Your task to perform on an android device: Check the news Image 0: 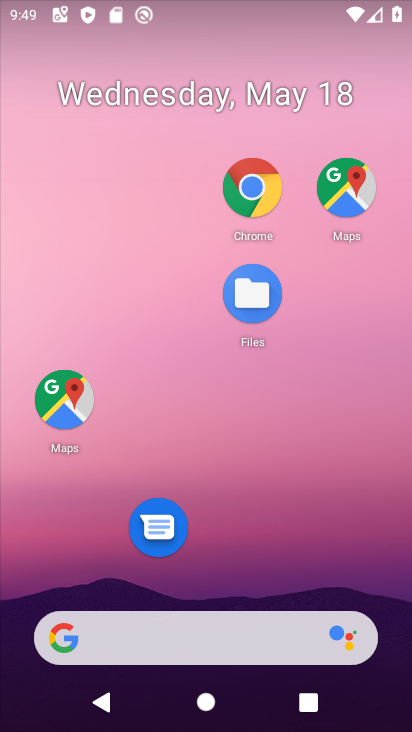
Step 0: click (191, 622)
Your task to perform on an android device: Check the news Image 1: 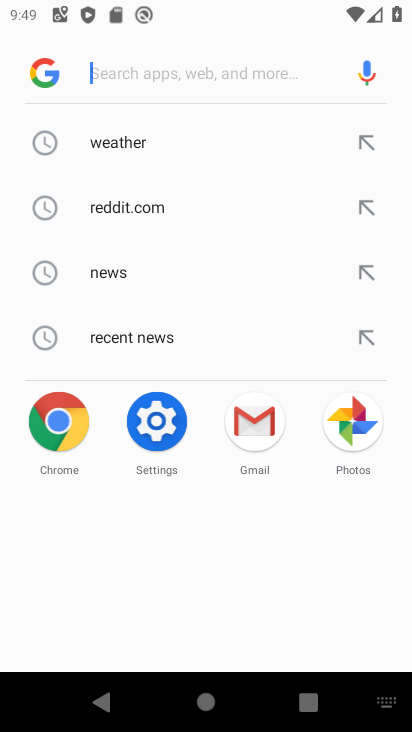
Step 1: click (150, 273)
Your task to perform on an android device: Check the news Image 2: 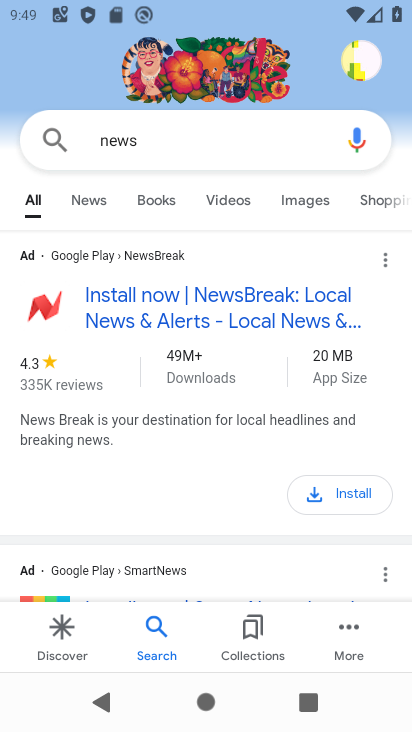
Step 2: drag from (157, 421) to (180, 193)
Your task to perform on an android device: Check the news Image 3: 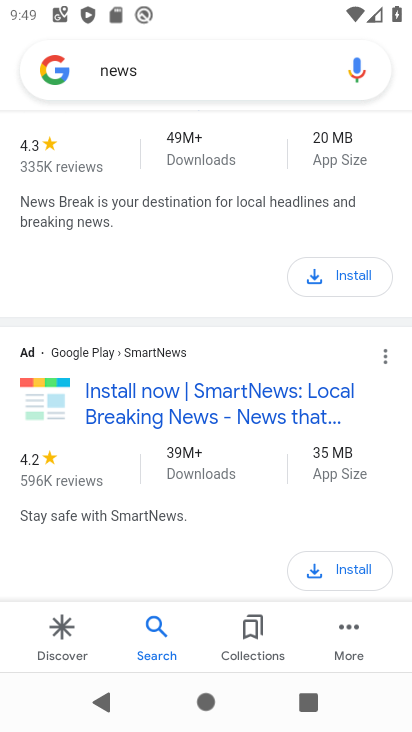
Step 3: drag from (181, 191) to (220, 364)
Your task to perform on an android device: Check the news Image 4: 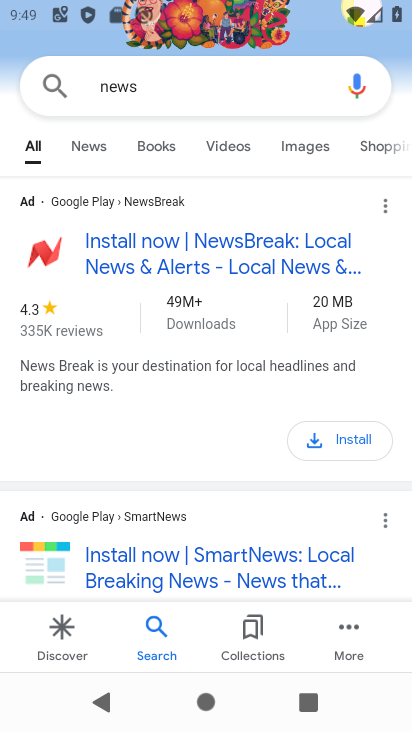
Step 4: click (102, 141)
Your task to perform on an android device: Check the news Image 5: 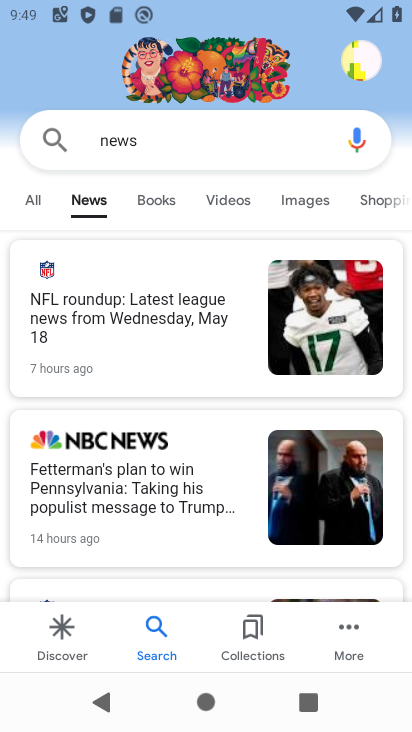
Step 5: task complete